Your task to perform on an android device: turn on bluetooth scan Image 0: 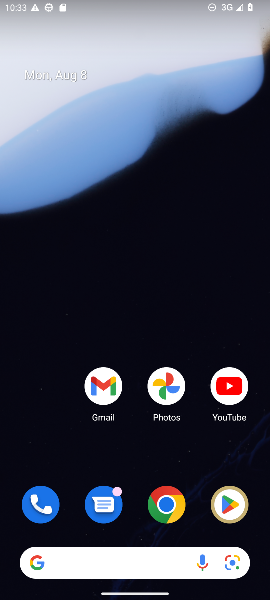
Step 0: drag from (137, 461) to (141, 11)
Your task to perform on an android device: turn on bluetooth scan Image 1: 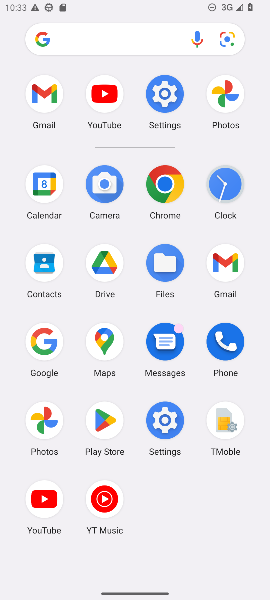
Step 1: click (164, 437)
Your task to perform on an android device: turn on bluetooth scan Image 2: 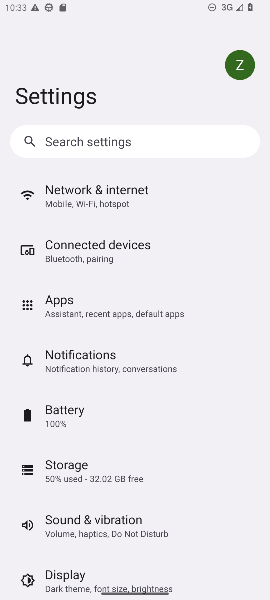
Step 2: drag from (89, 510) to (115, 248)
Your task to perform on an android device: turn on bluetooth scan Image 3: 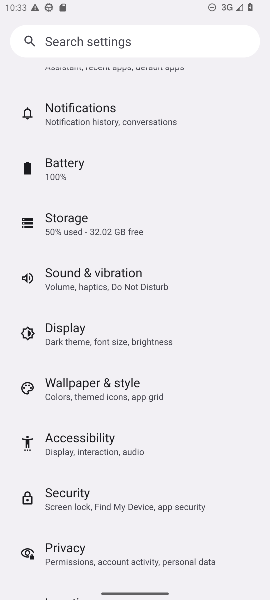
Step 3: drag from (104, 515) to (111, 224)
Your task to perform on an android device: turn on bluetooth scan Image 4: 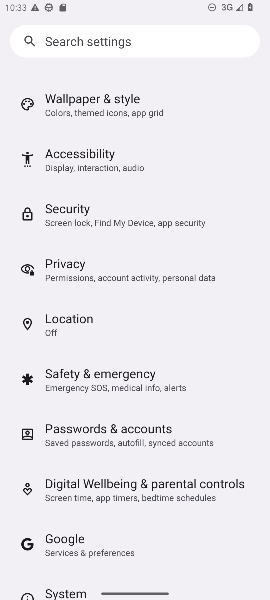
Step 4: click (81, 323)
Your task to perform on an android device: turn on bluetooth scan Image 5: 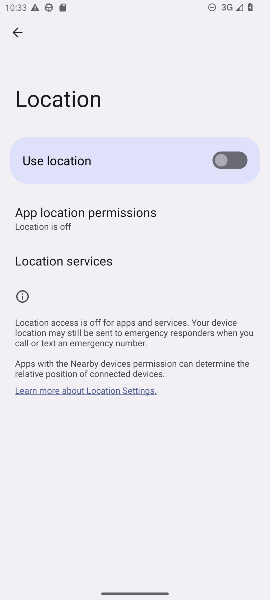
Step 5: click (54, 261)
Your task to perform on an android device: turn on bluetooth scan Image 6: 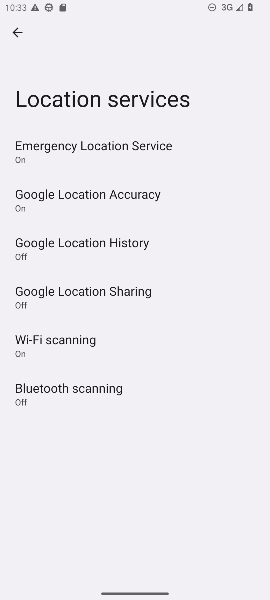
Step 6: click (85, 395)
Your task to perform on an android device: turn on bluetooth scan Image 7: 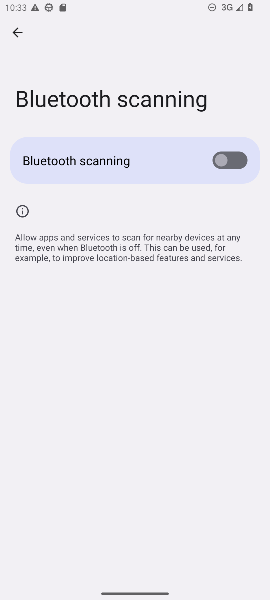
Step 7: click (243, 157)
Your task to perform on an android device: turn on bluetooth scan Image 8: 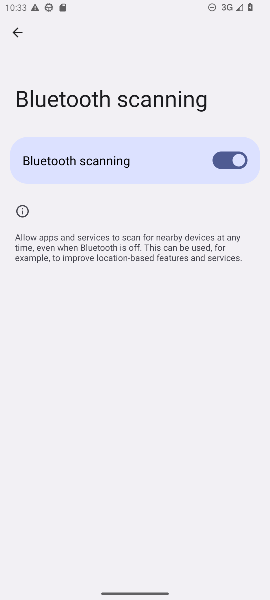
Step 8: task complete